Your task to perform on an android device: open chrome and create a bookmark for the current page Image 0: 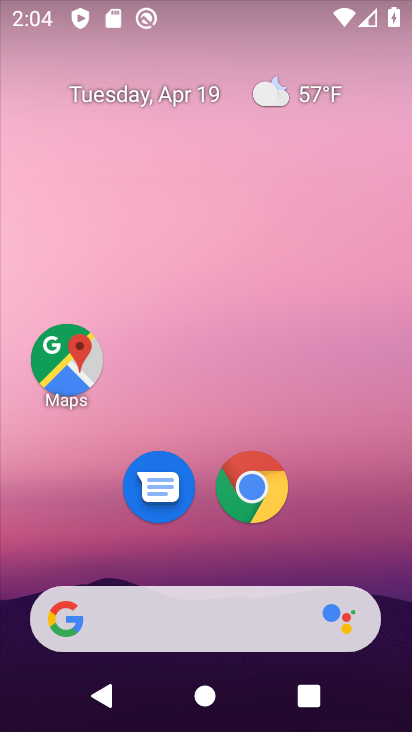
Step 0: click (273, 505)
Your task to perform on an android device: open chrome and create a bookmark for the current page Image 1: 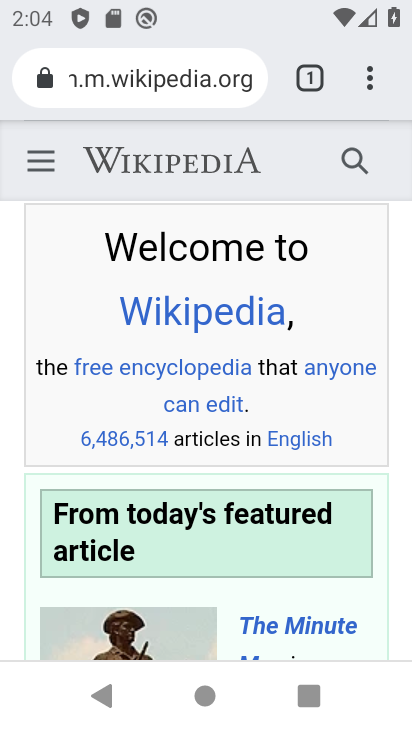
Step 1: click (367, 75)
Your task to perform on an android device: open chrome and create a bookmark for the current page Image 2: 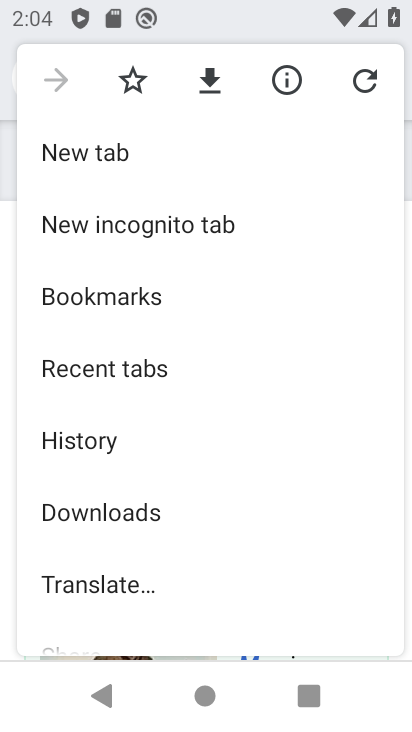
Step 2: press home button
Your task to perform on an android device: open chrome and create a bookmark for the current page Image 3: 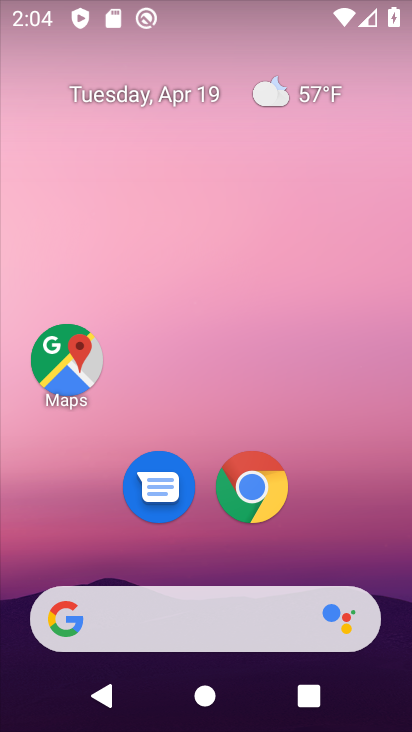
Step 3: click (264, 476)
Your task to perform on an android device: open chrome and create a bookmark for the current page Image 4: 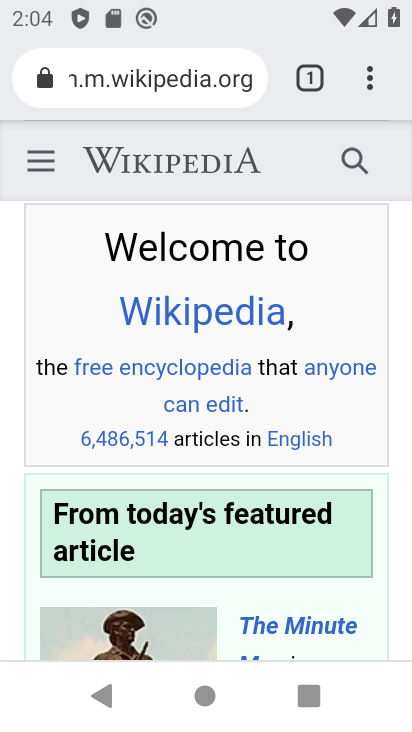
Step 4: click (359, 86)
Your task to perform on an android device: open chrome and create a bookmark for the current page Image 5: 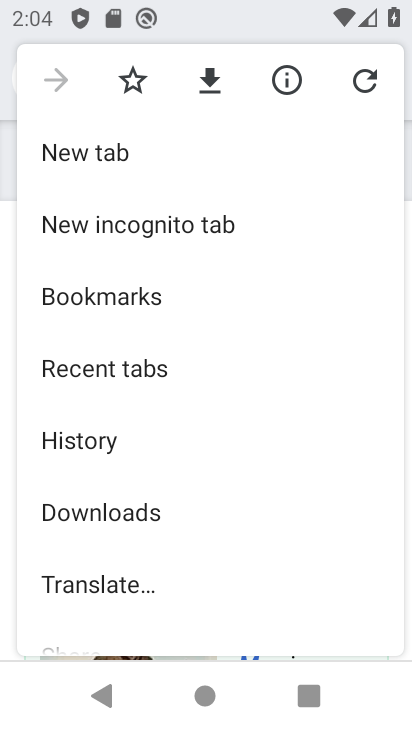
Step 5: click (135, 85)
Your task to perform on an android device: open chrome and create a bookmark for the current page Image 6: 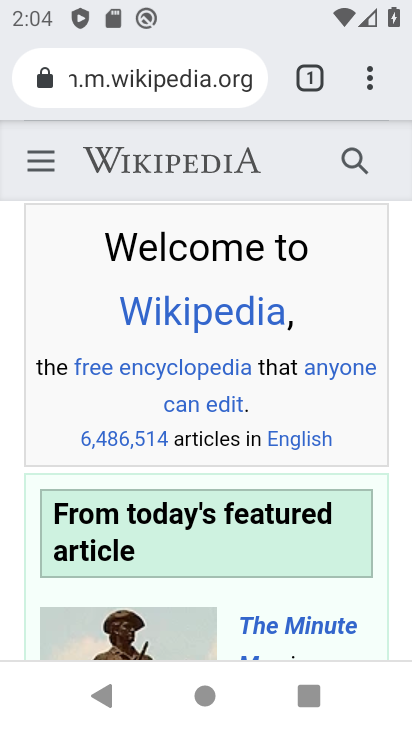
Step 6: task complete